Your task to perform on an android device: Open Yahoo.com Image 0: 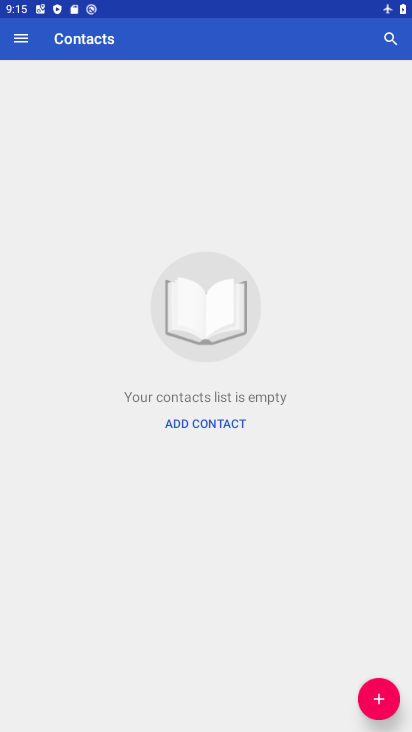
Step 0: press home button
Your task to perform on an android device: Open Yahoo.com Image 1: 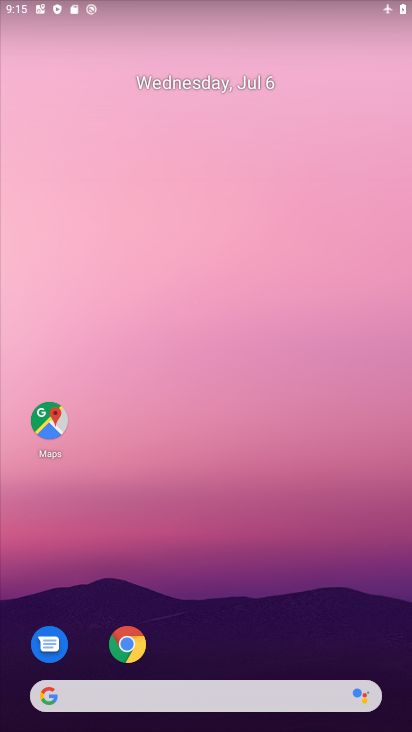
Step 1: click (138, 647)
Your task to perform on an android device: Open Yahoo.com Image 2: 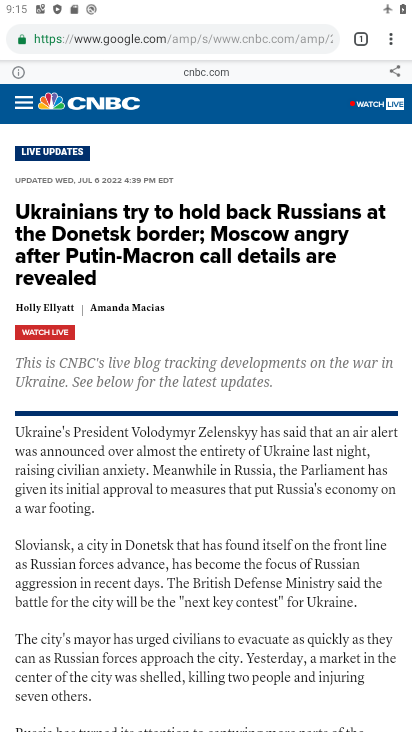
Step 2: click (356, 32)
Your task to perform on an android device: Open Yahoo.com Image 3: 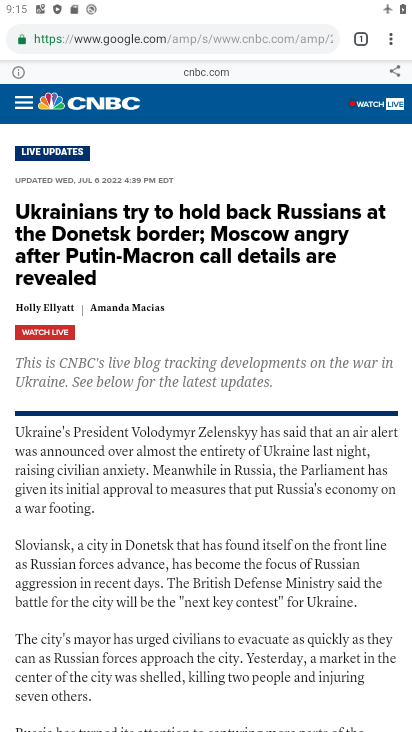
Step 3: click (358, 45)
Your task to perform on an android device: Open Yahoo.com Image 4: 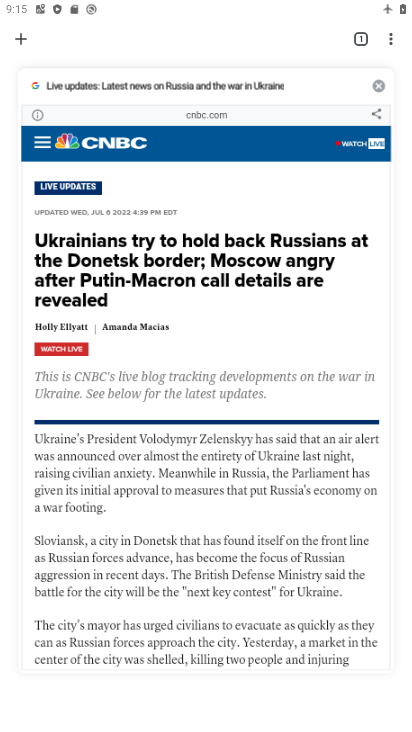
Step 4: click (22, 47)
Your task to perform on an android device: Open Yahoo.com Image 5: 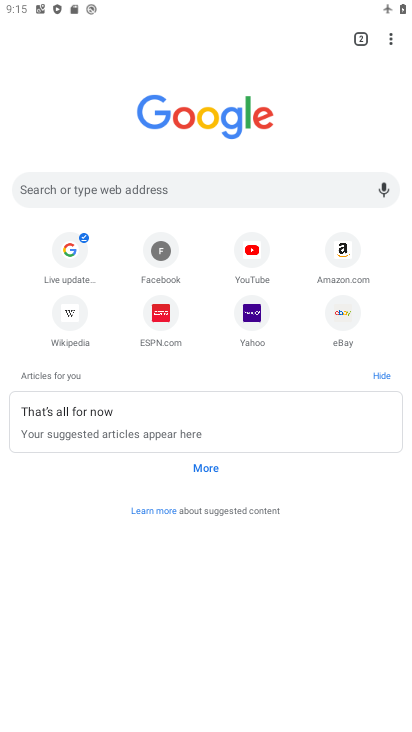
Step 5: click (246, 322)
Your task to perform on an android device: Open Yahoo.com Image 6: 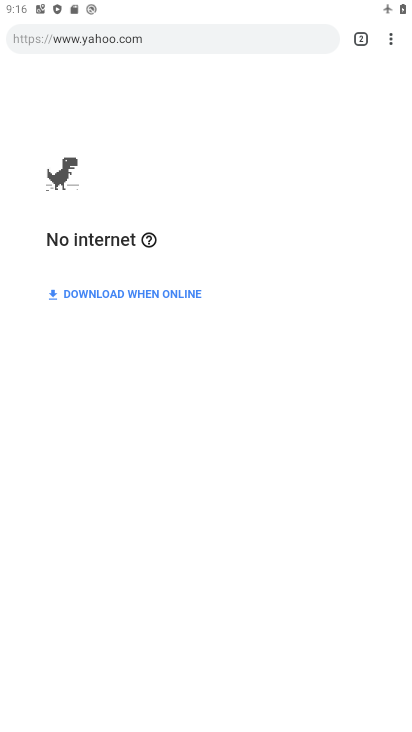
Step 6: task complete